Your task to perform on an android device: turn off picture-in-picture Image 0: 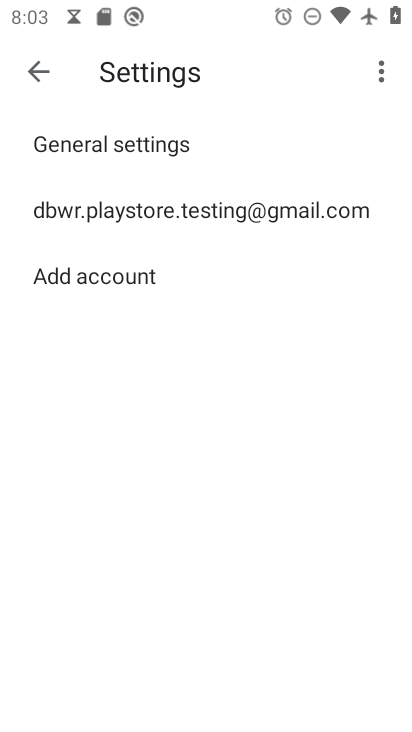
Step 0: press home button
Your task to perform on an android device: turn off picture-in-picture Image 1: 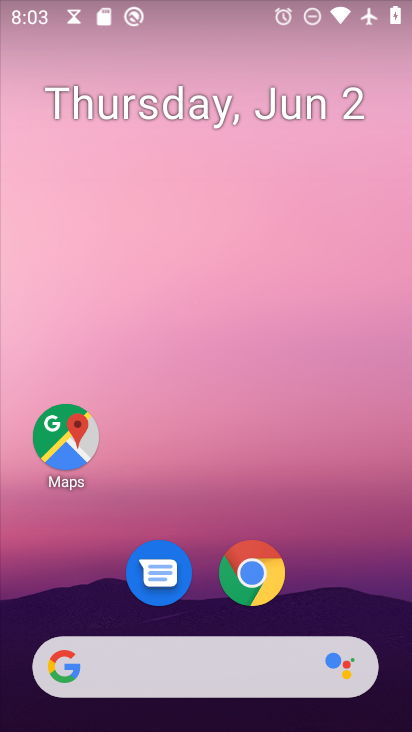
Step 1: click (253, 563)
Your task to perform on an android device: turn off picture-in-picture Image 2: 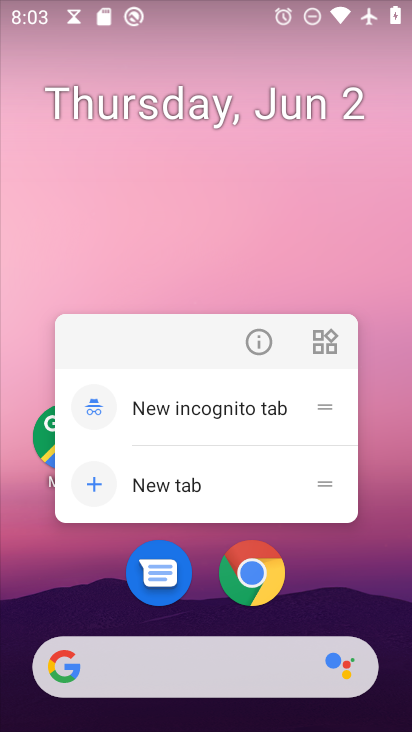
Step 2: click (252, 347)
Your task to perform on an android device: turn off picture-in-picture Image 3: 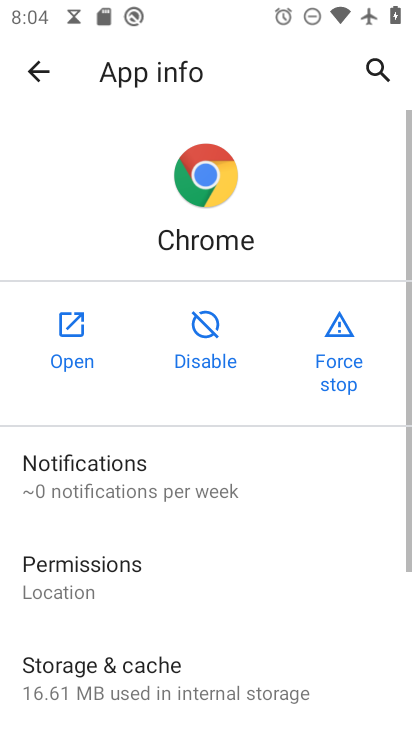
Step 3: drag from (215, 645) to (311, 60)
Your task to perform on an android device: turn off picture-in-picture Image 4: 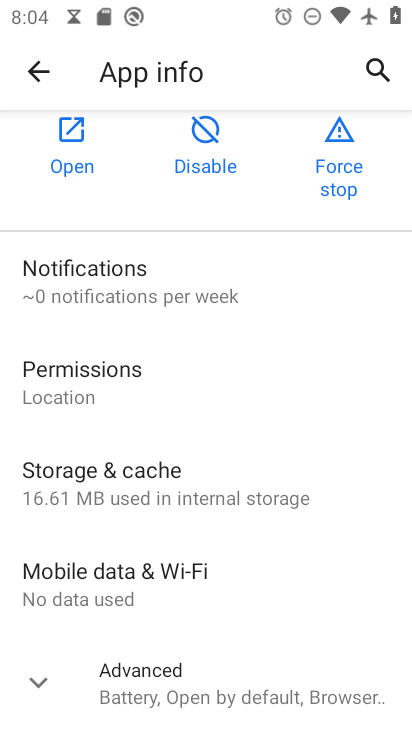
Step 4: click (128, 683)
Your task to perform on an android device: turn off picture-in-picture Image 5: 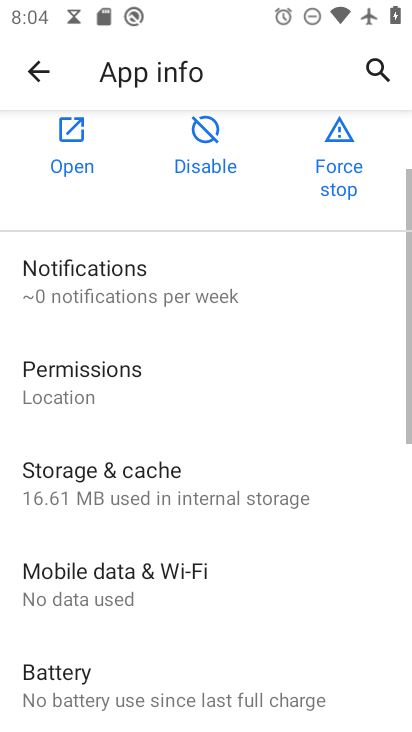
Step 5: drag from (206, 605) to (289, 75)
Your task to perform on an android device: turn off picture-in-picture Image 6: 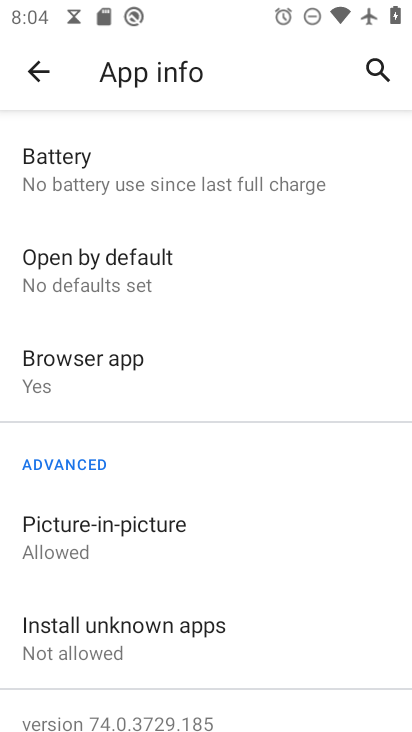
Step 6: click (125, 541)
Your task to perform on an android device: turn off picture-in-picture Image 7: 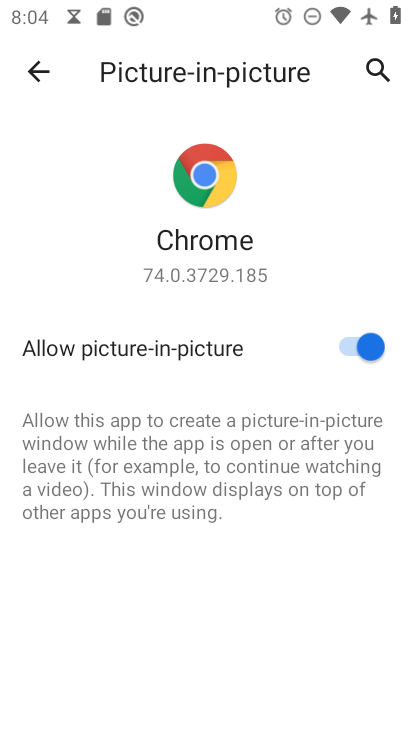
Step 7: click (358, 349)
Your task to perform on an android device: turn off picture-in-picture Image 8: 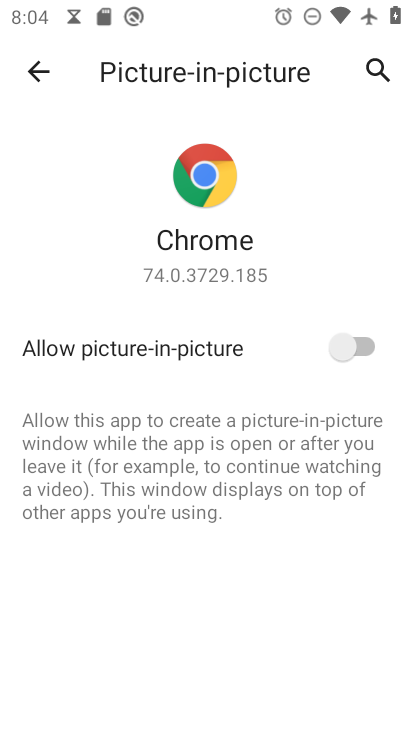
Step 8: task complete